Your task to perform on an android device: refresh tabs in the chrome app Image 0: 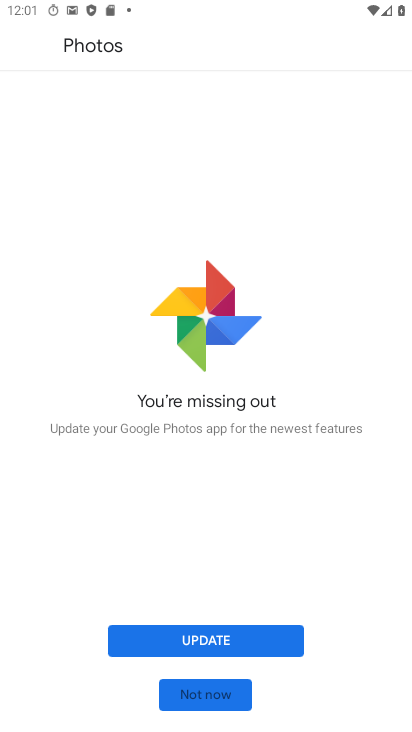
Step 0: press home button
Your task to perform on an android device: refresh tabs in the chrome app Image 1: 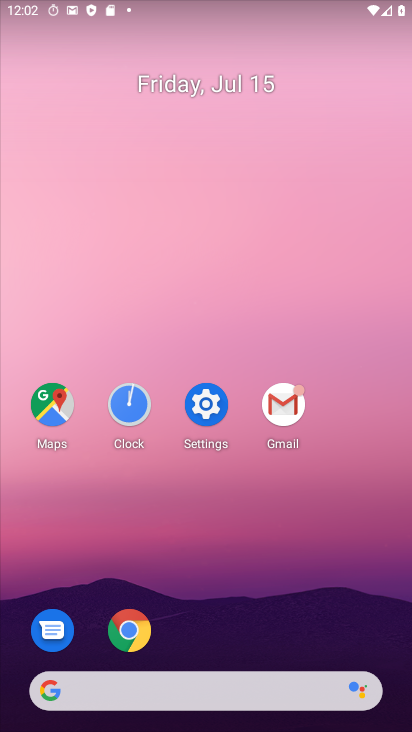
Step 1: click (139, 625)
Your task to perform on an android device: refresh tabs in the chrome app Image 2: 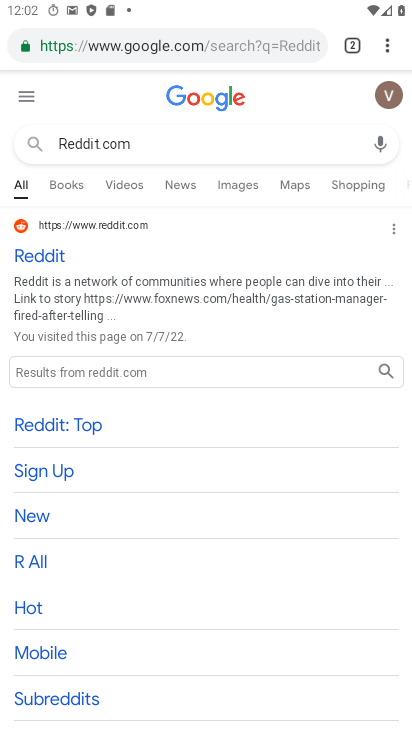
Step 2: click (387, 51)
Your task to perform on an android device: refresh tabs in the chrome app Image 3: 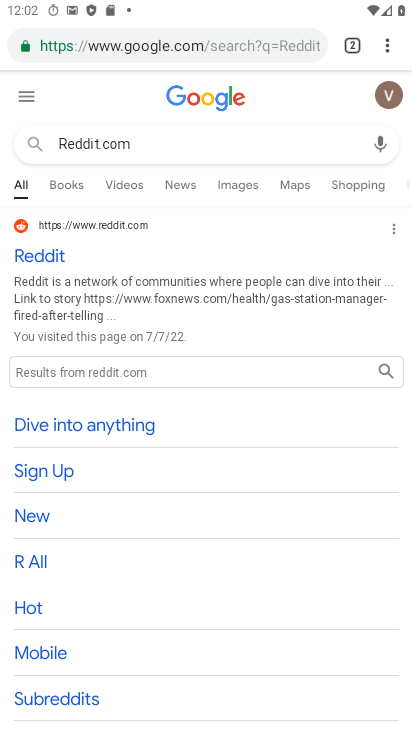
Step 3: click (384, 42)
Your task to perform on an android device: refresh tabs in the chrome app Image 4: 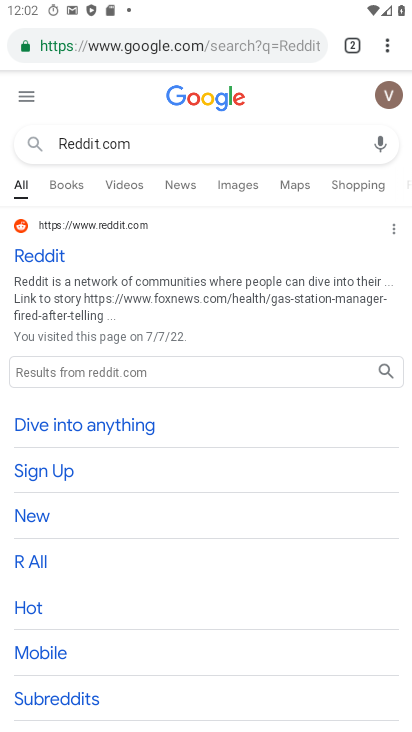
Step 4: click (386, 46)
Your task to perform on an android device: refresh tabs in the chrome app Image 5: 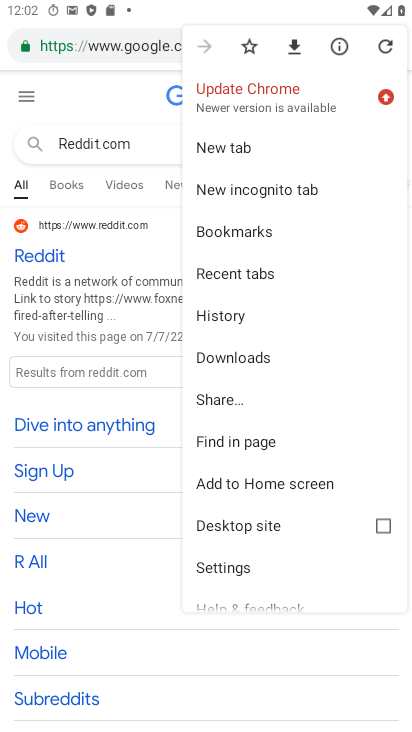
Step 5: click (380, 40)
Your task to perform on an android device: refresh tabs in the chrome app Image 6: 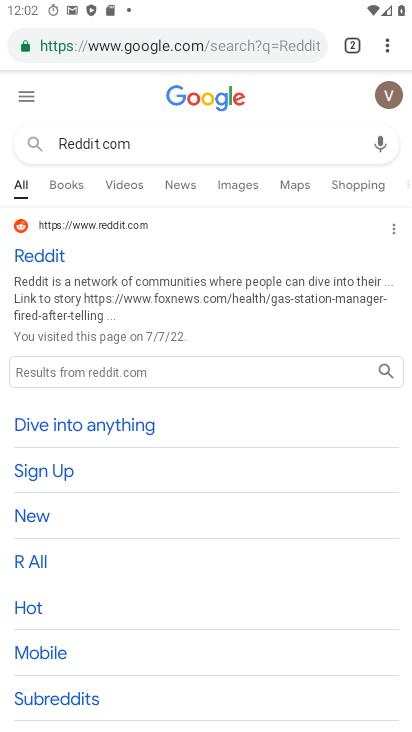
Step 6: task complete